Your task to perform on an android device: Search for "razer thresher" on costco.com, select the first entry, add it to the cart, then select checkout. Image 0: 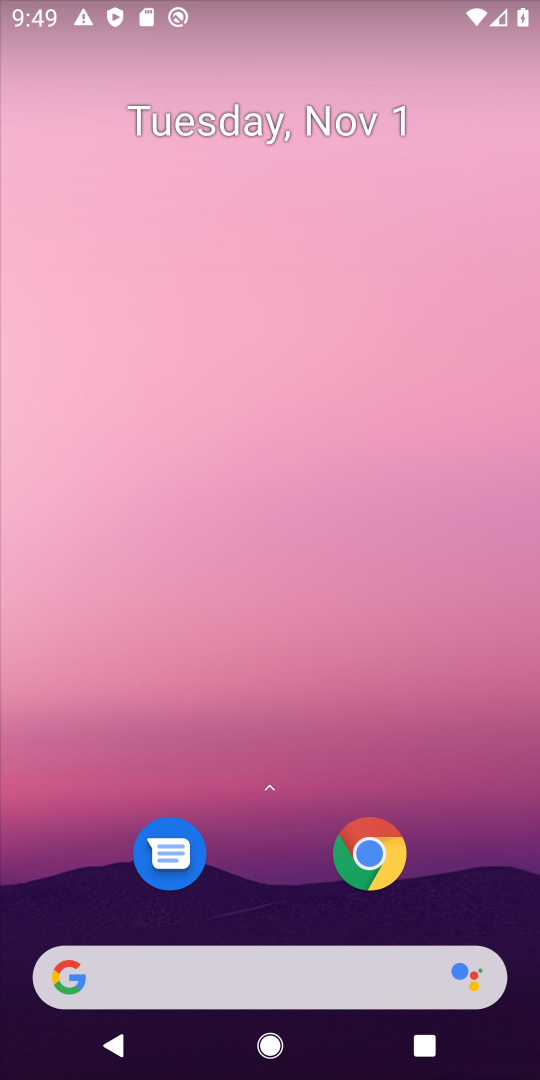
Step 0: click (138, 1004)
Your task to perform on an android device: Search for "razer thresher" on costco.com, select the first entry, add it to the cart, then select checkout. Image 1: 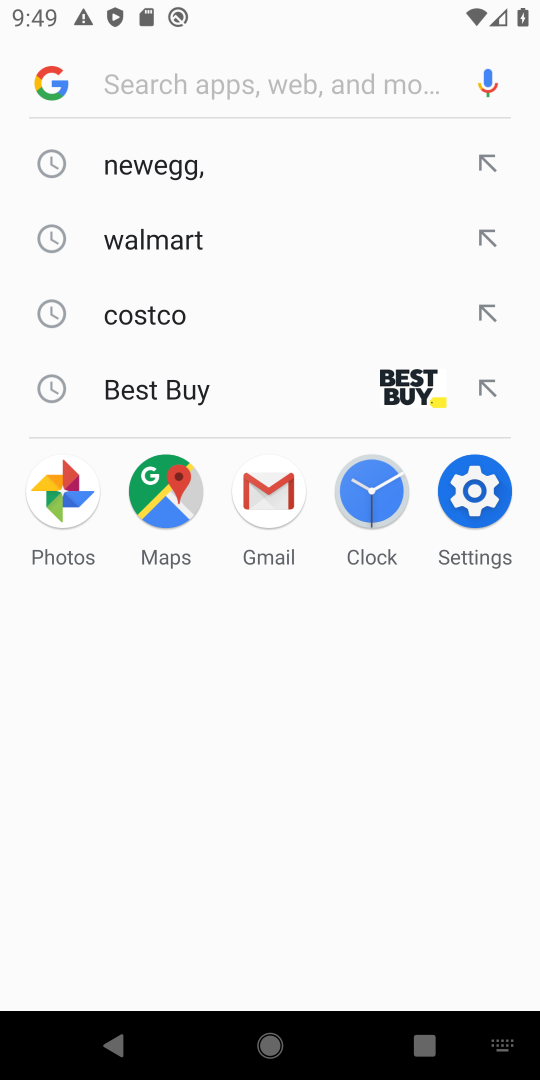
Step 1: type "cotco"
Your task to perform on an android device: Search for "razer thresher" on costco.com, select the first entry, add it to the cart, then select checkout. Image 2: 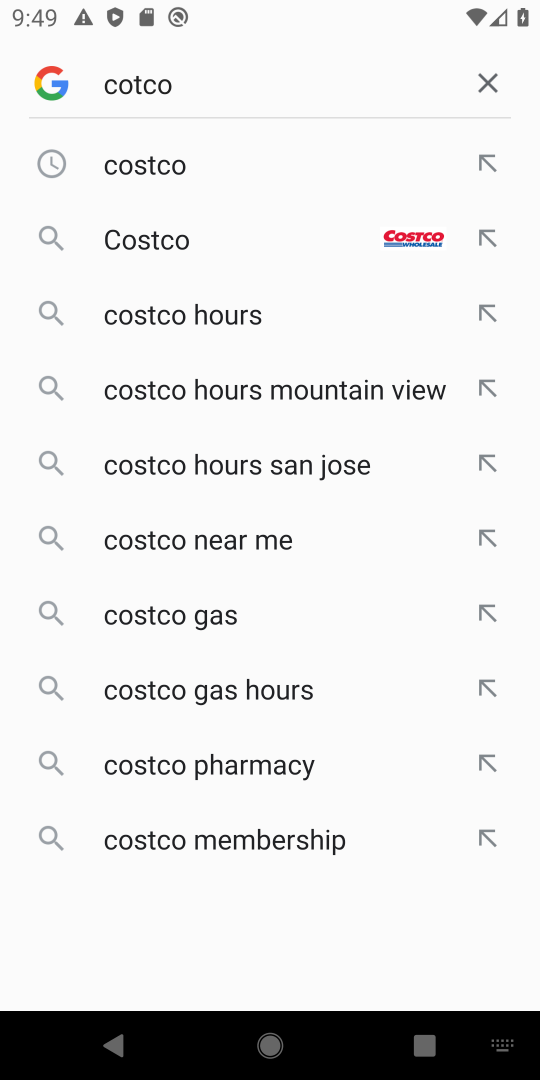
Step 2: click (346, 250)
Your task to perform on an android device: Search for "razer thresher" on costco.com, select the first entry, add it to the cart, then select checkout. Image 3: 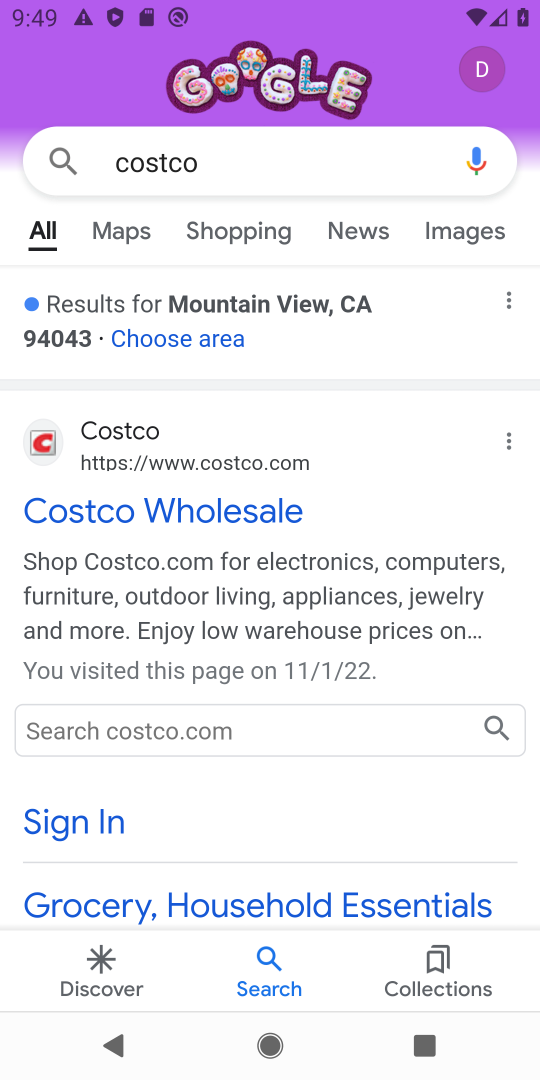
Step 3: click (228, 504)
Your task to perform on an android device: Search for "razer thresher" on costco.com, select the first entry, add it to the cart, then select checkout. Image 4: 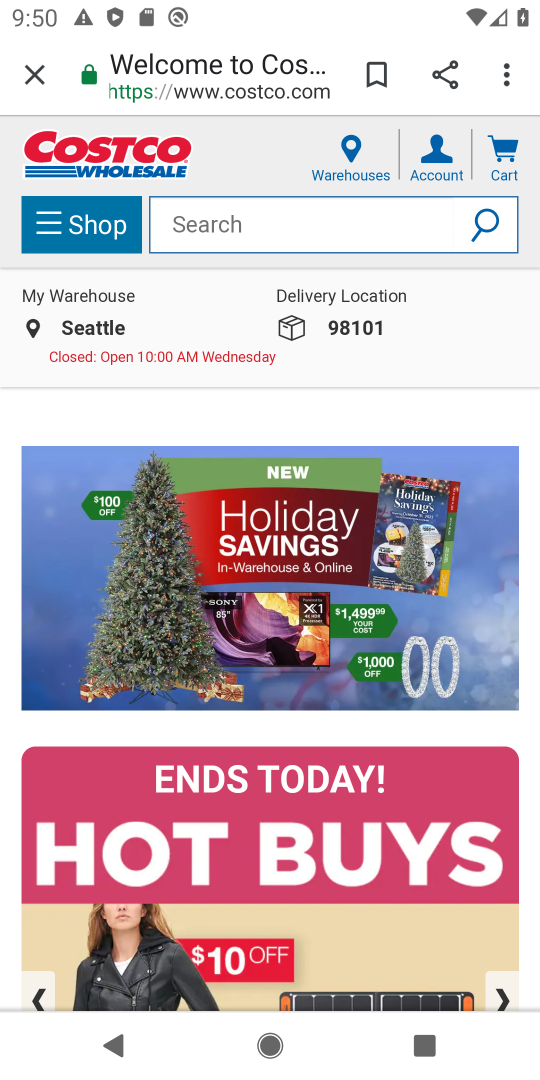
Step 4: click (237, 232)
Your task to perform on an android device: Search for "razer thresher" on costco.com, select the first entry, add it to the cart, then select checkout. Image 5: 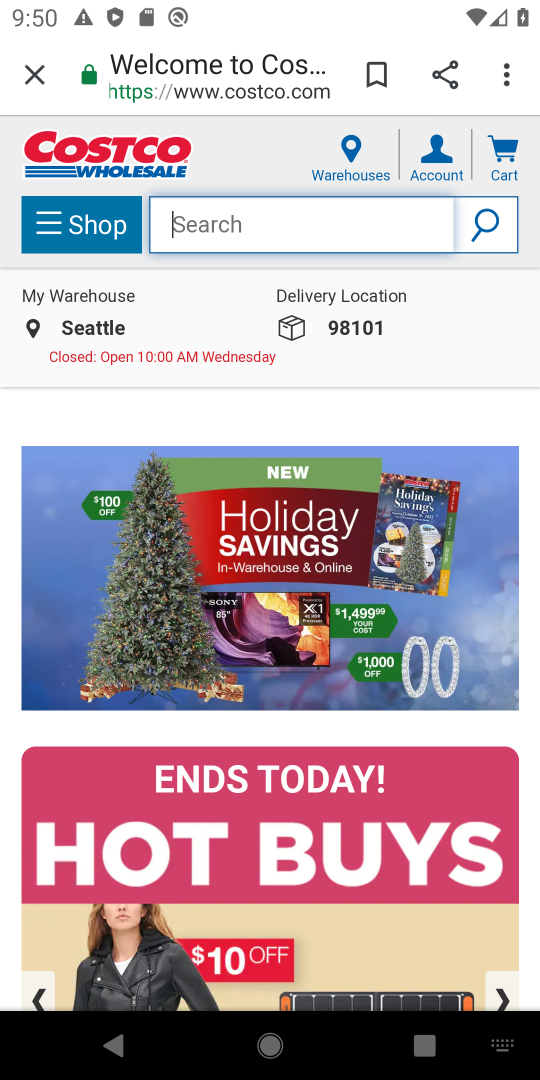
Step 5: type "razer thresher"
Your task to perform on an android device: Search for "razer thresher" on costco.com, select the first entry, add it to the cart, then select checkout. Image 6: 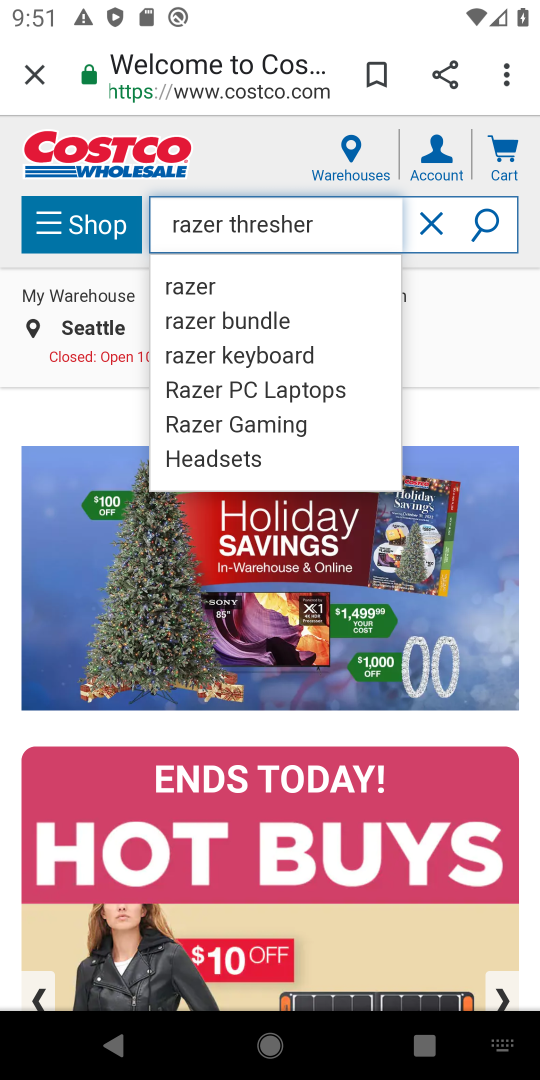
Step 6: click (479, 235)
Your task to perform on an android device: Search for "razer thresher" on costco.com, select the first entry, add it to the cart, then select checkout. Image 7: 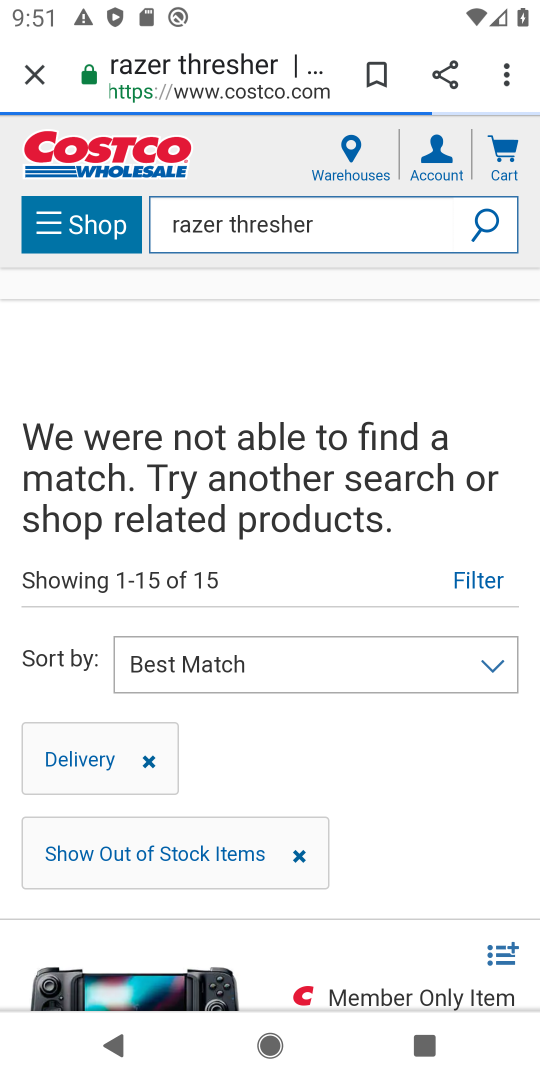
Step 7: task complete